Your task to perform on an android device: open app "Facebook Messenger" Image 0: 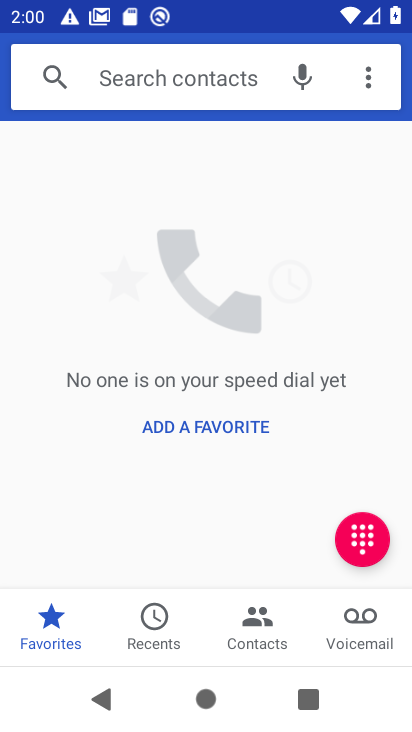
Step 0: press home button
Your task to perform on an android device: open app "Facebook Messenger" Image 1: 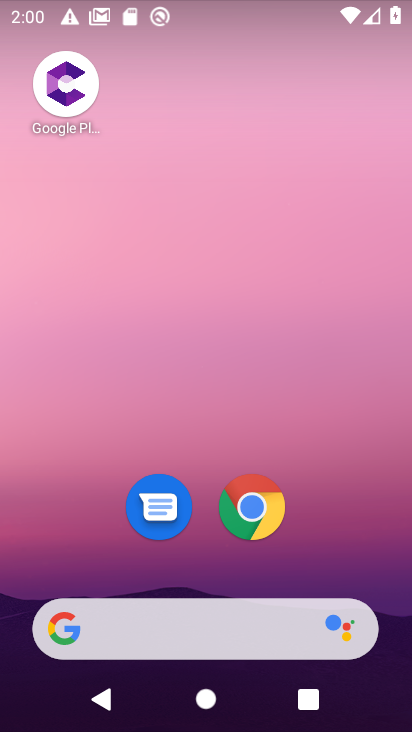
Step 1: drag from (182, 568) to (406, 186)
Your task to perform on an android device: open app "Facebook Messenger" Image 2: 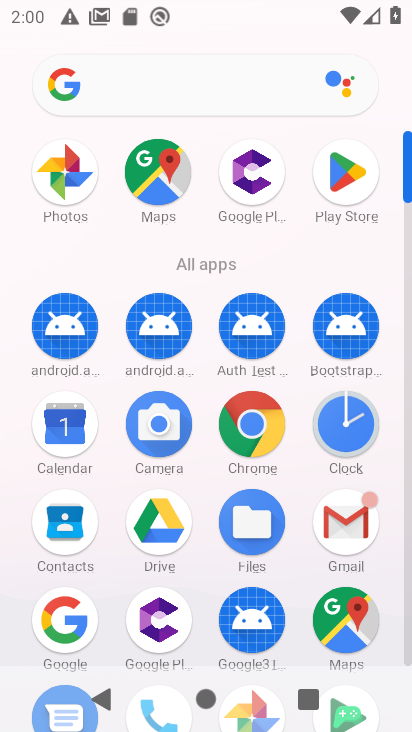
Step 2: click (335, 194)
Your task to perform on an android device: open app "Facebook Messenger" Image 3: 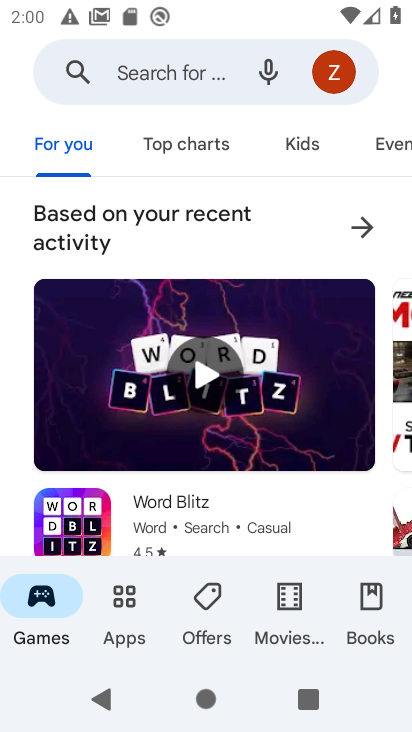
Step 3: click (136, 60)
Your task to perform on an android device: open app "Facebook Messenger" Image 4: 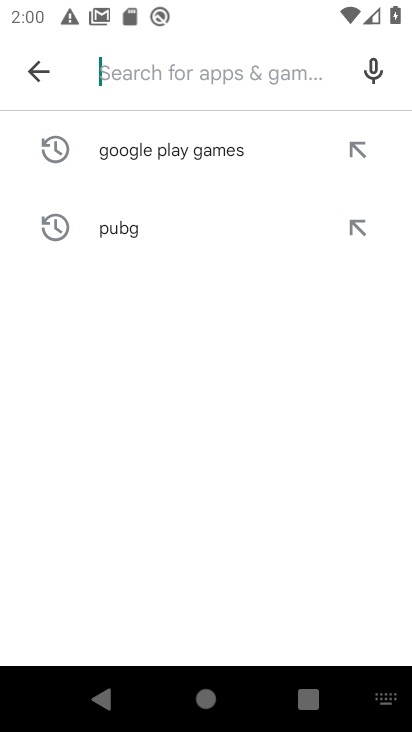
Step 4: type "facebook messenger"
Your task to perform on an android device: open app "Facebook Messenger" Image 5: 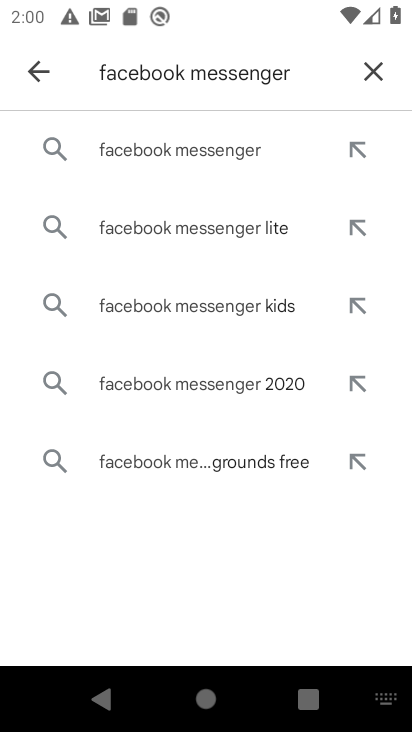
Step 5: click (210, 151)
Your task to perform on an android device: open app "Facebook Messenger" Image 6: 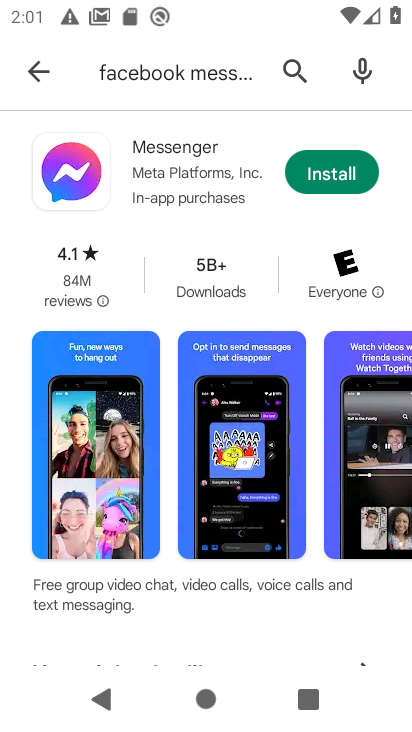
Step 6: task complete